Your task to perform on an android device: Look up the best rated 5.1 home theater speakers on Walmart. Image 0: 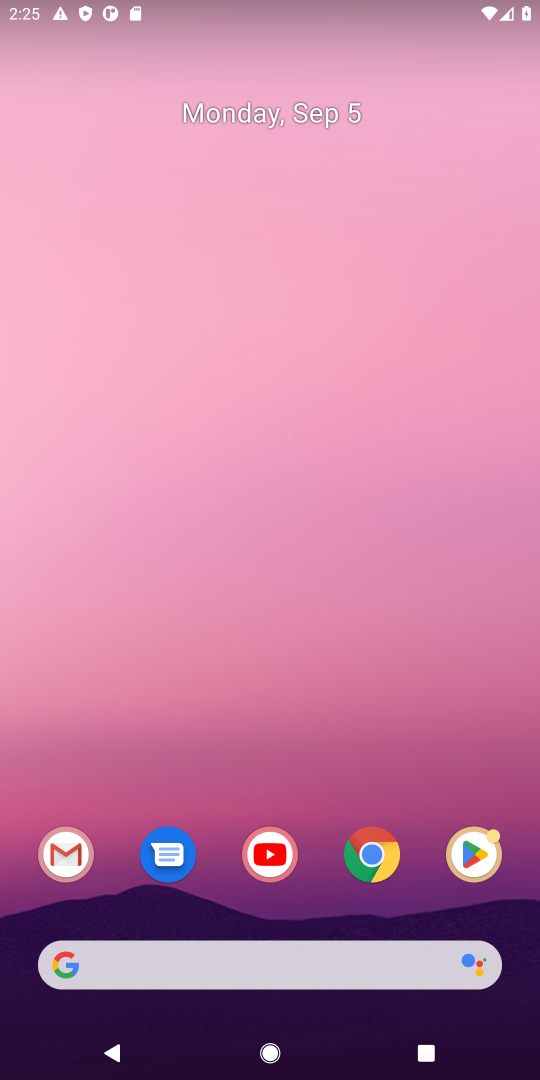
Step 0: click (381, 966)
Your task to perform on an android device: Look up the best rated 5.1 home theater speakers on Walmart. Image 1: 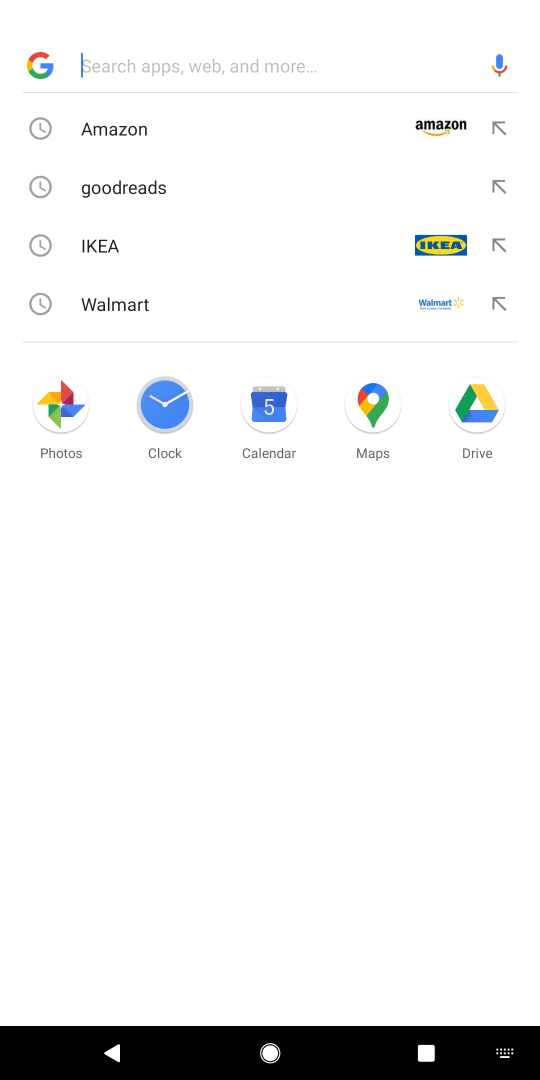
Step 1: type "walmart"
Your task to perform on an android device: Look up the best rated 5.1 home theater speakers on Walmart. Image 2: 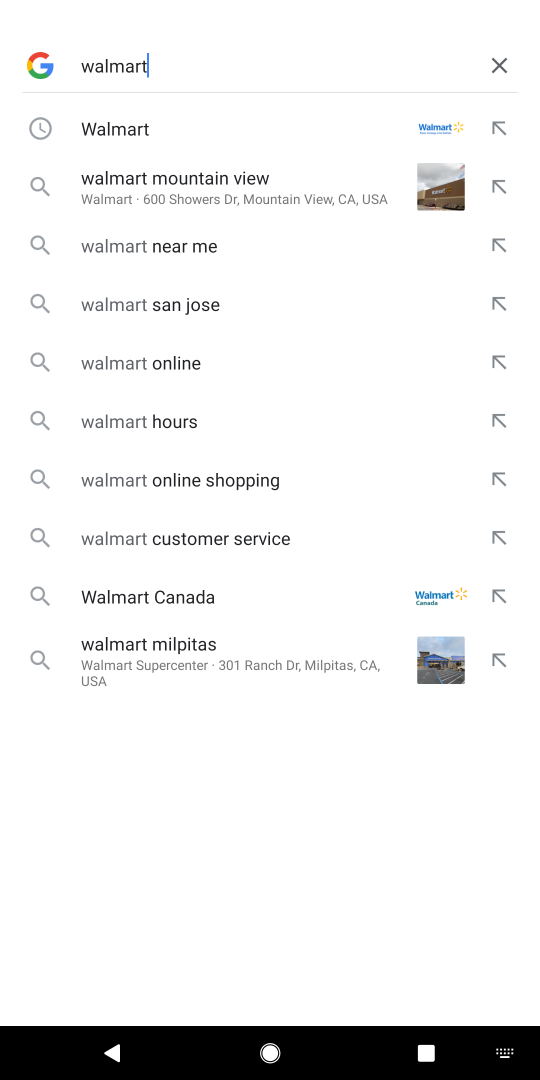
Step 2: press enter
Your task to perform on an android device: Look up the best rated 5.1 home theater speakers on Walmart. Image 3: 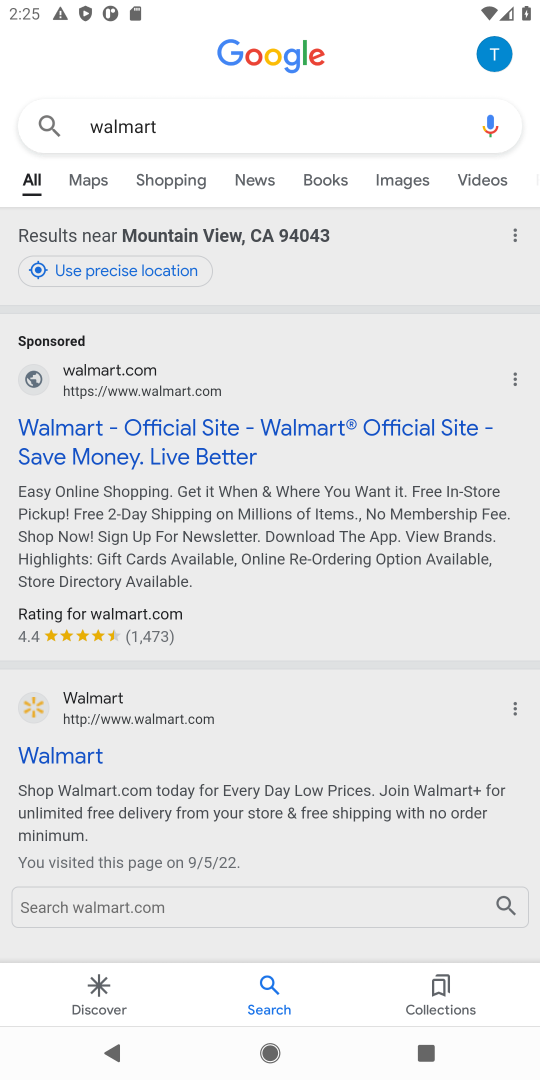
Step 3: click (195, 445)
Your task to perform on an android device: Look up the best rated 5.1 home theater speakers on Walmart. Image 4: 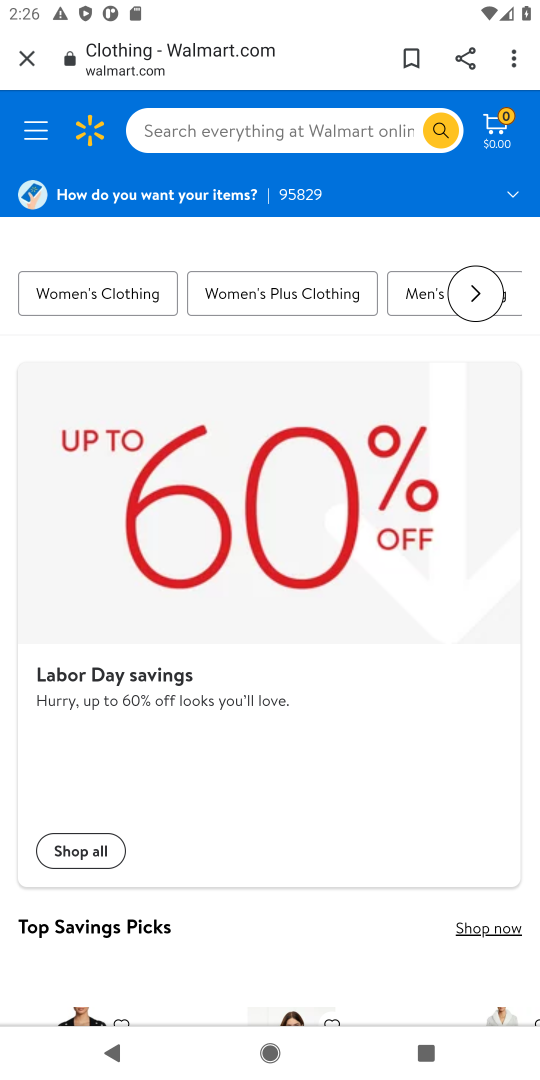
Step 4: click (228, 131)
Your task to perform on an android device: Look up the best rated 5.1 home theater speakers on Walmart. Image 5: 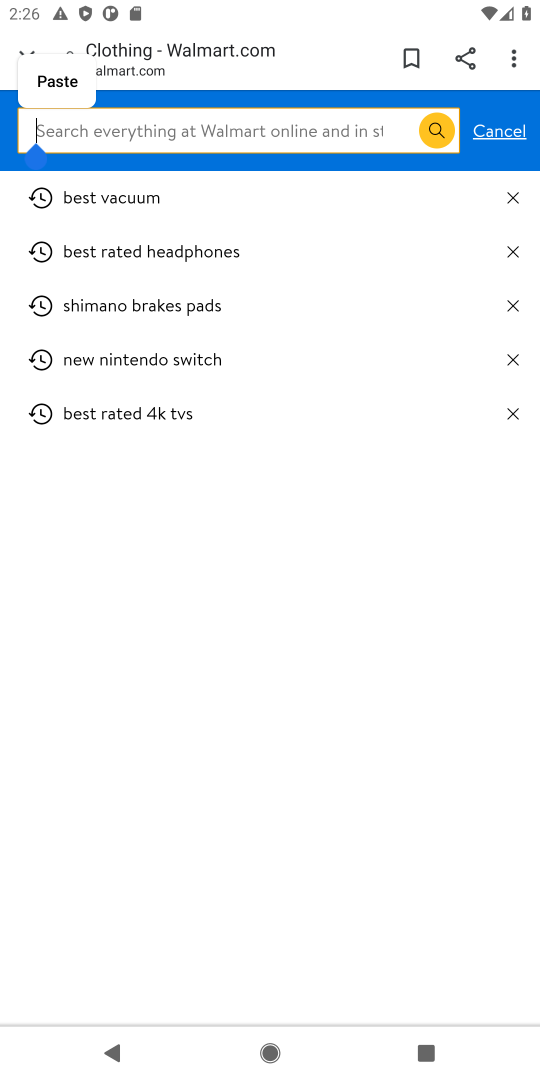
Step 5: type "best rated 5.1 home theater speaker"
Your task to perform on an android device: Look up the best rated 5.1 home theater speakers on Walmart. Image 6: 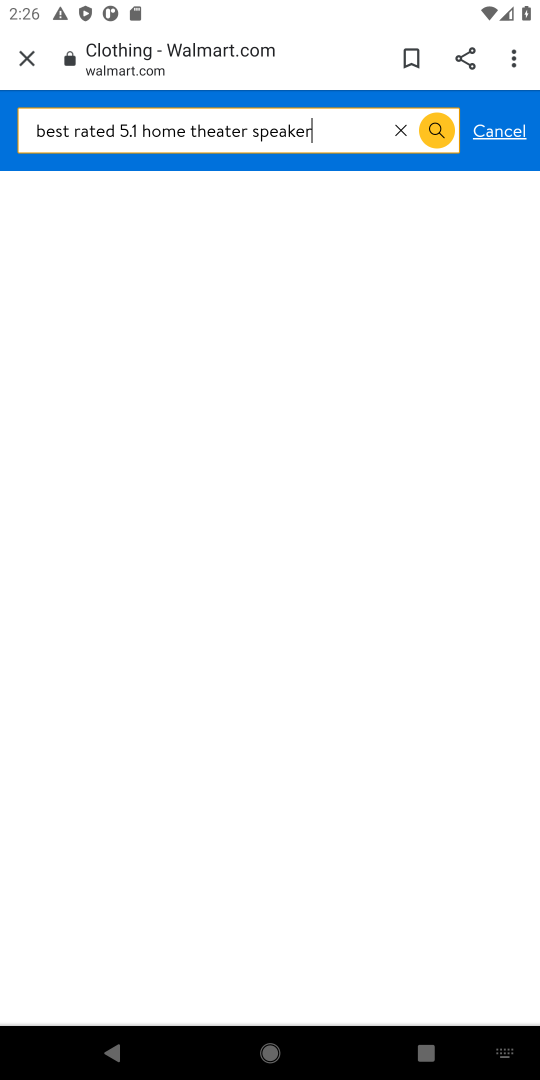
Step 6: press enter
Your task to perform on an android device: Look up the best rated 5.1 home theater speakers on Walmart. Image 7: 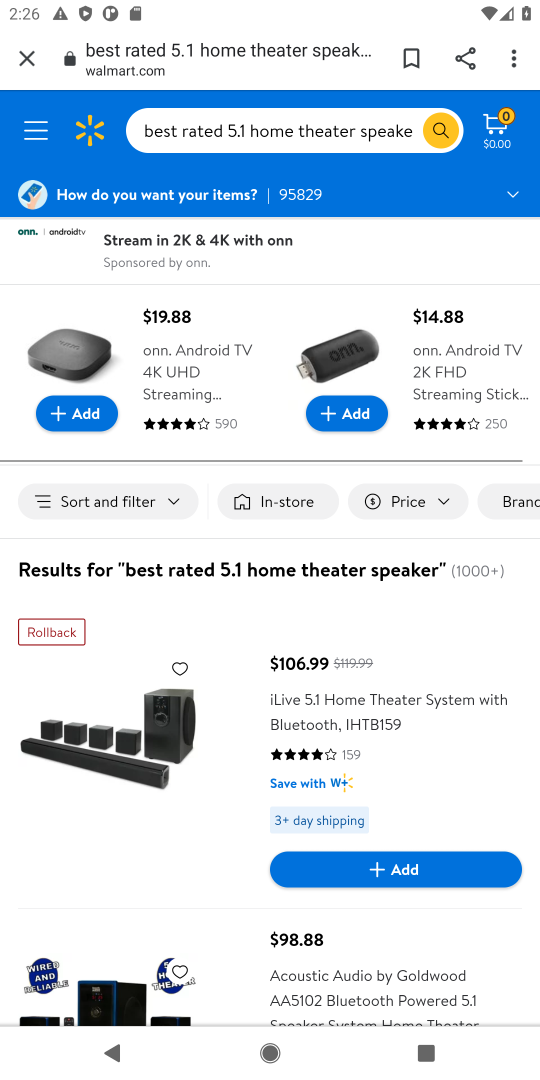
Step 7: task complete